Your task to perform on an android device: see sites visited before in the chrome app Image 0: 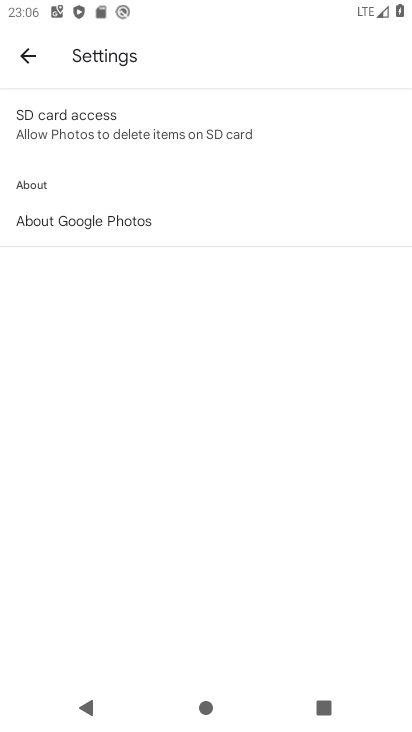
Step 0: press back button
Your task to perform on an android device: see sites visited before in the chrome app Image 1: 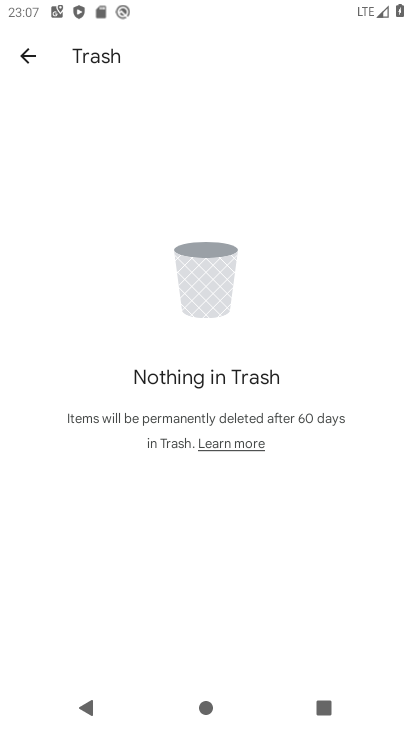
Step 1: press back button
Your task to perform on an android device: see sites visited before in the chrome app Image 2: 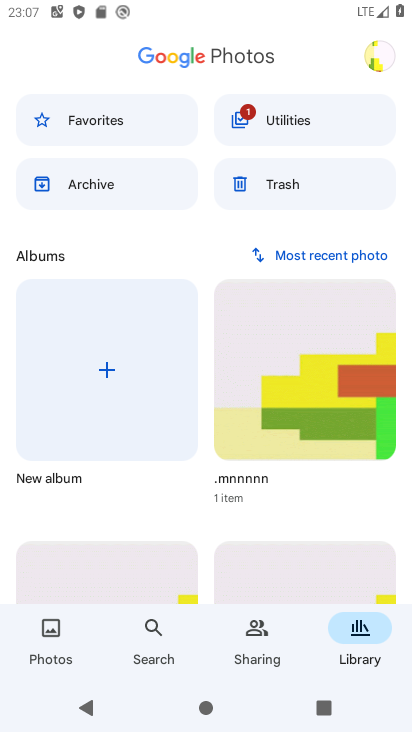
Step 2: press back button
Your task to perform on an android device: see sites visited before in the chrome app Image 3: 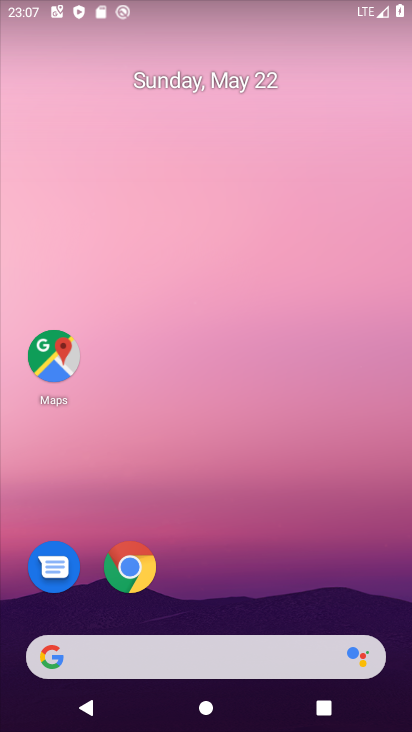
Step 3: drag from (232, 540) to (196, 5)
Your task to perform on an android device: see sites visited before in the chrome app Image 4: 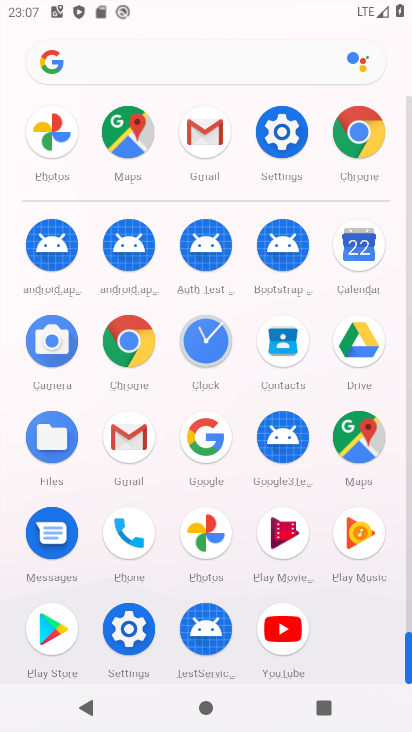
Step 4: click (122, 337)
Your task to perform on an android device: see sites visited before in the chrome app Image 5: 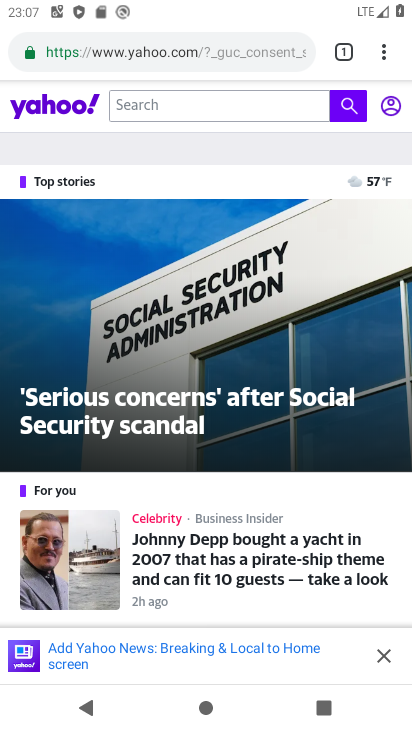
Step 5: click (203, 38)
Your task to perform on an android device: see sites visited before in the chrome app Image 6: 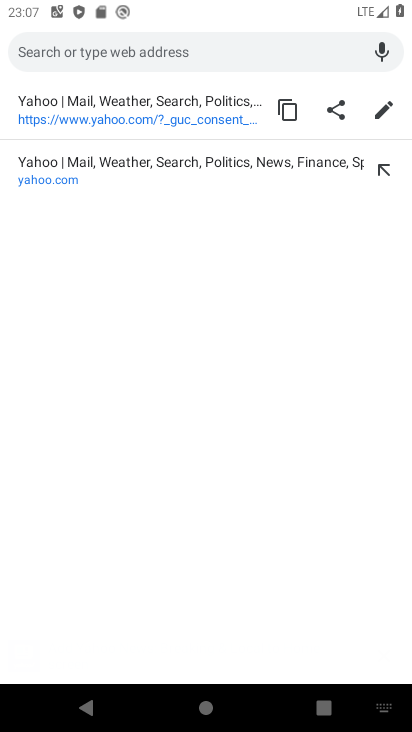
Step 6: task complete